Your task to perform on an android device: Show me popular videos on Youtube Image 0: 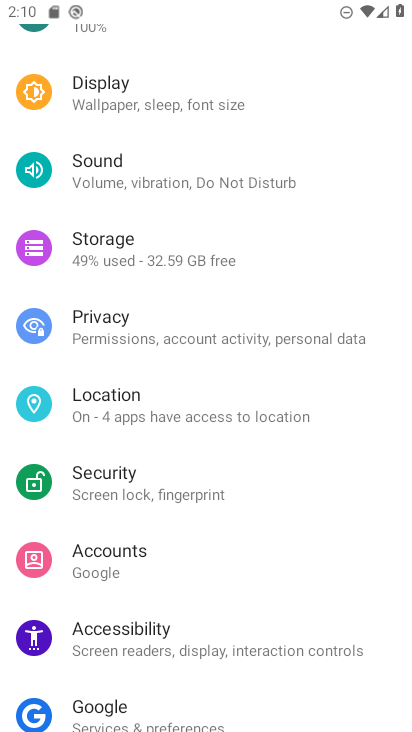
Step 0: press home button
Your task to perform on an android device: Show me popular videos on Youtube Image 1: 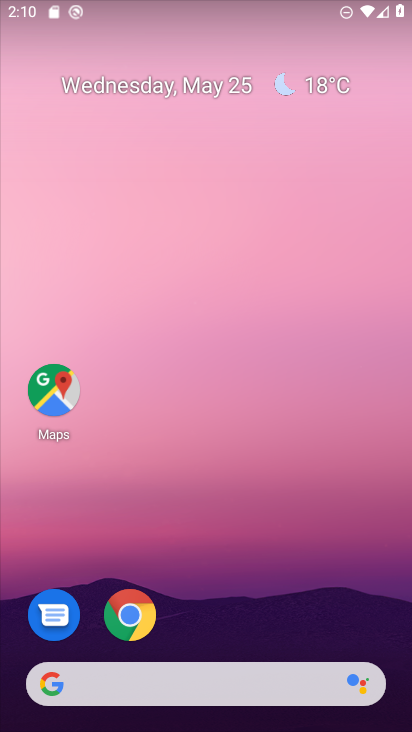
Step 1: drag from (254, 606) to (270, 7)
Your task to perform on an android device: Show me popular videos on Youtube Image 2: 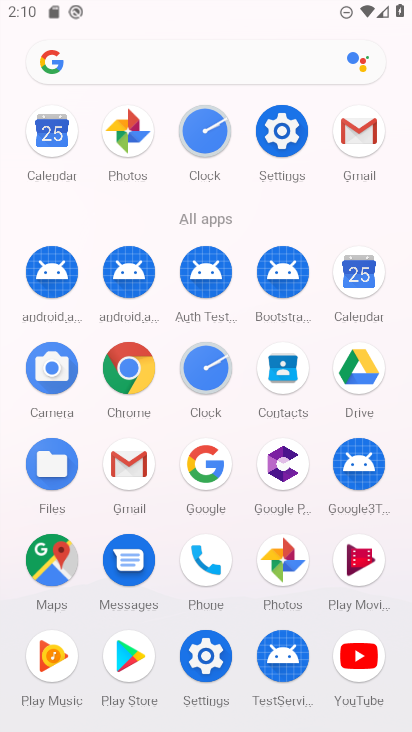
Step 2: click (359, 643)
Your task to perform on an android device: Show me popular videos on Youtube Image 3: 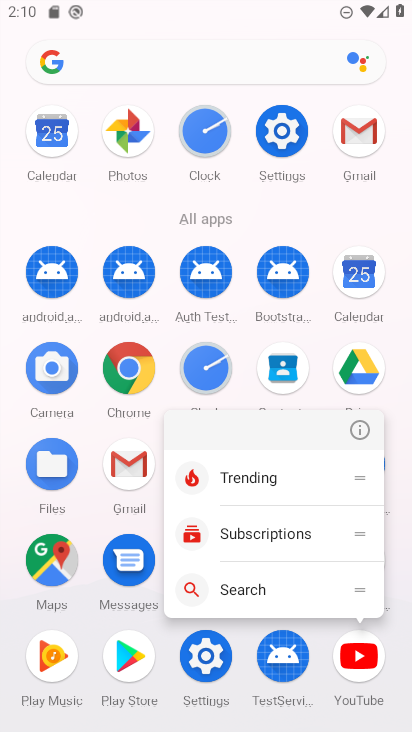
Step 3: click (361, 651)
Your task to perform on an android device: Show me popular videos on Youtube Image 4: 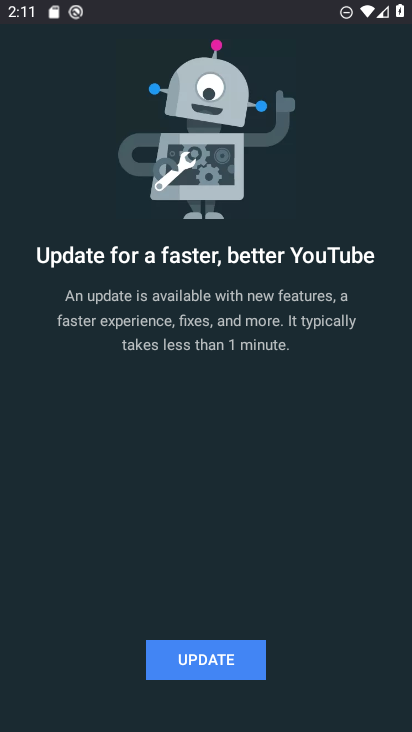
Step 4: click (220, 655)
Your task to perform on an android device: Show me popular videos on Youtube Image 5: 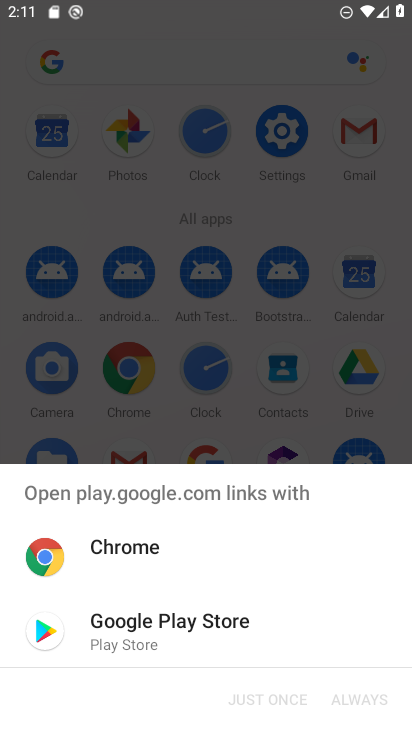
Step 5: click (163, 625)
Your task to perform on an android device: Show me popular videos on Youtube Image 6: 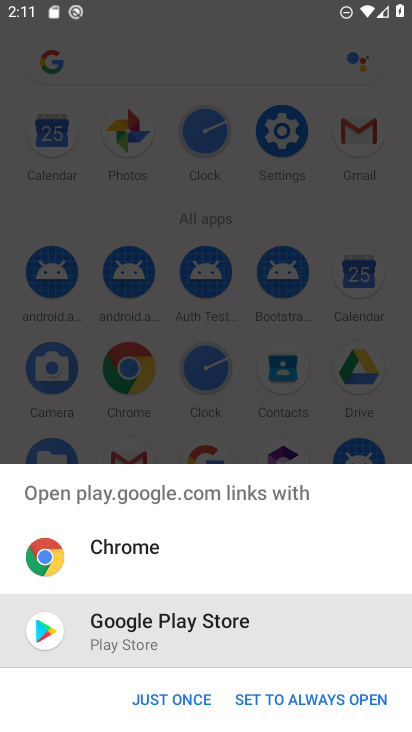
Step 6: click (175, 694)
Your task to perform on an android device: Show me popular videos on Youtube Image 7: 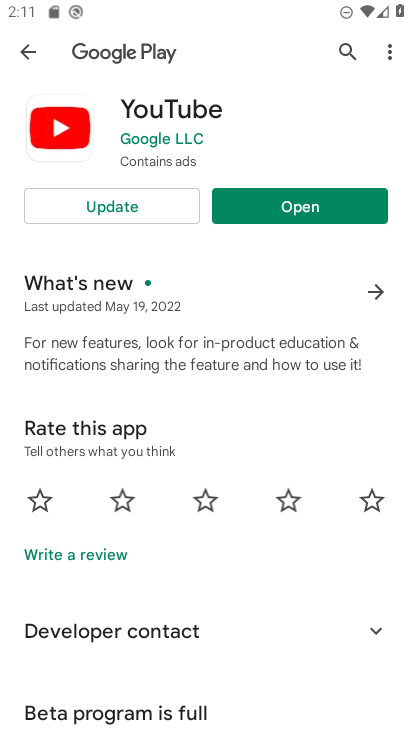
Step 7: click (168, 207)
Your task to perform on an android device: Show me popular videos on Youtube Image 8: 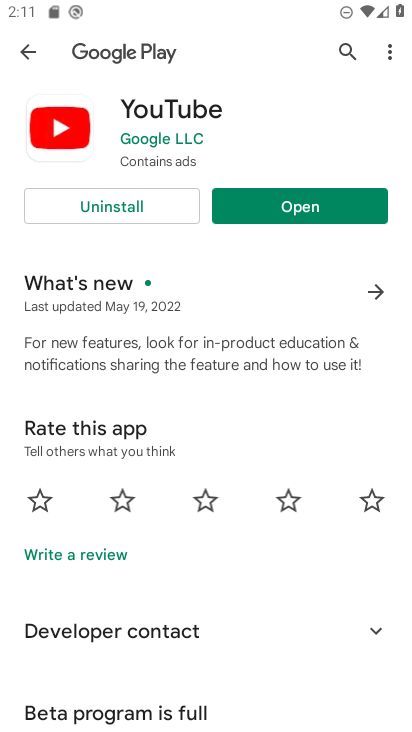
Step 8: click (318, 200)
Your task to perform on an android device: Show me popular videos on Youtube Image 9: 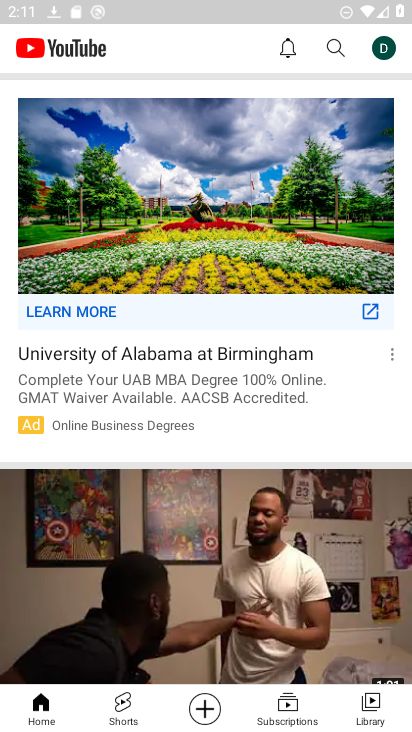
Step 9: click (337, 42)
Your task to perform on an android device: Show me popular videos on Youtube Image 10: 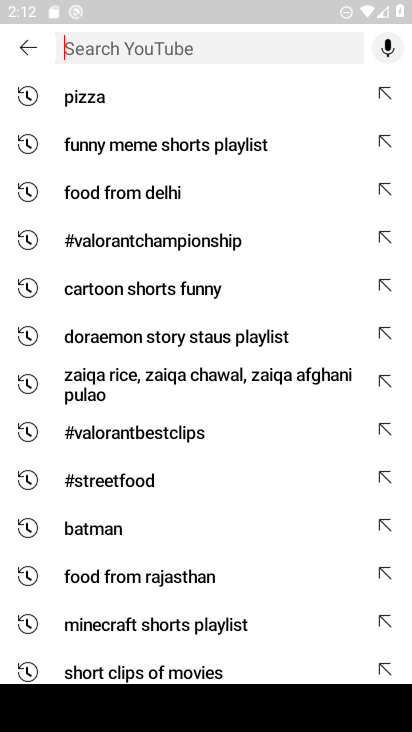
Step 10: type "Popular videos"
Your task to perform on an android device: Show me popular videos on Youtube Image 11: 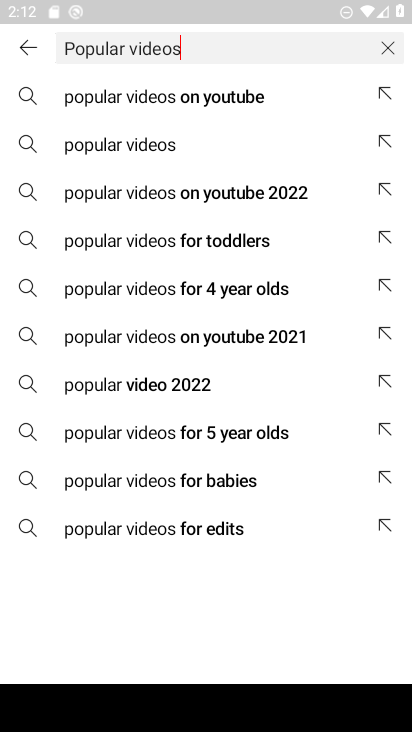
Step 11: click (245, 88)
Your task to perform on an android device: Show me popular videos on Youtube Image 12: 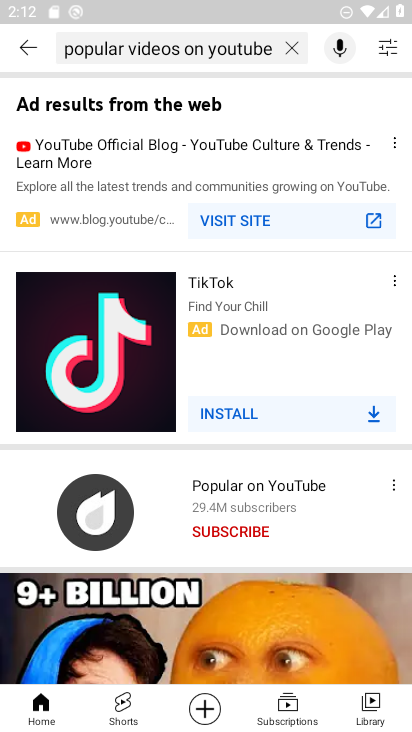
Step 12: task complete